Your task to perform on an android device: toggle data saver in the chrome app Image 0: 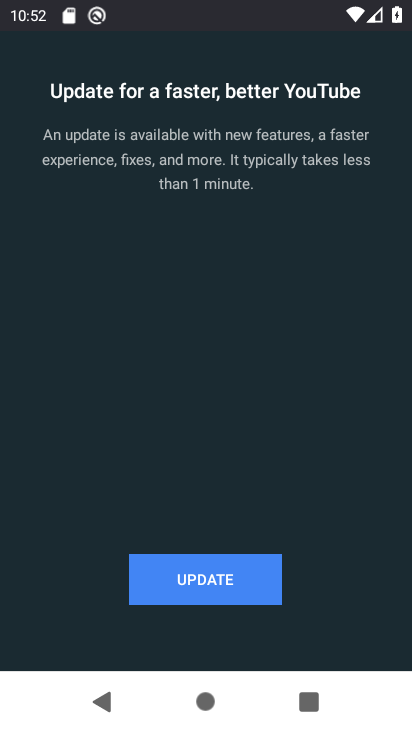
Step 0: press home button
Your task to perform on an android device: toggle data saver in the chrome app Image 1: 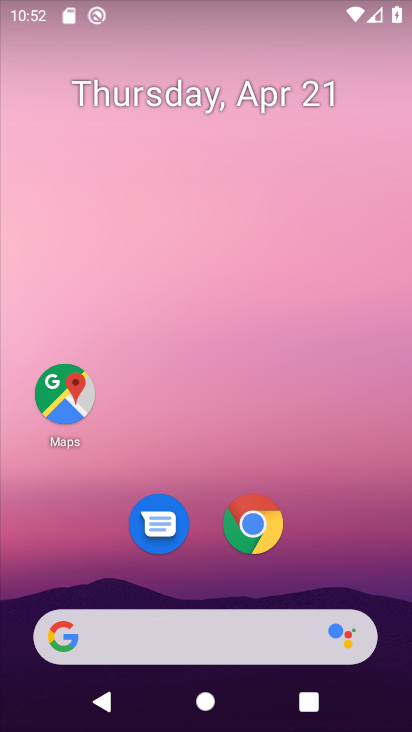
Step 1: click (257, 517)
Your task to perform on an android device: toggle data saver in the chrome app Image 2: 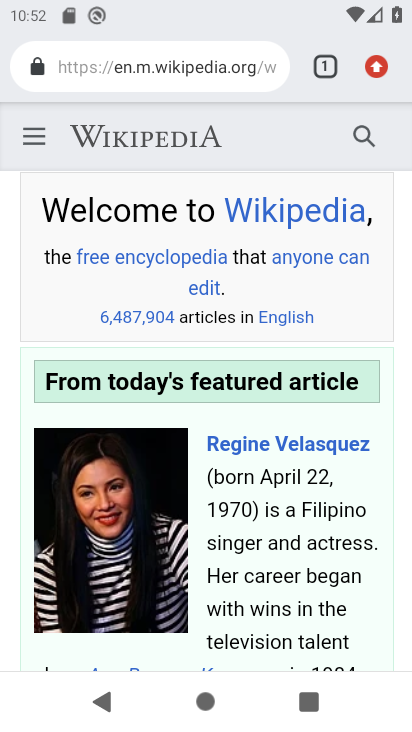
Step 2: drag from (378, 64) to (219, 533)
Your task to perform on an android device: toggle data saver in the chrome app Image 3: 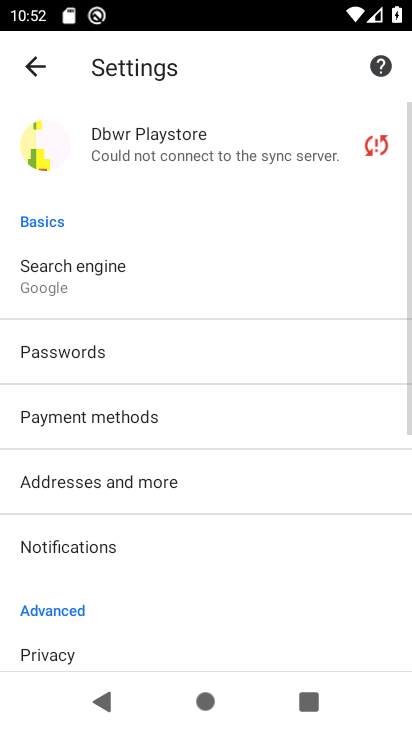
Step 3: drag from (250, 608) to (296, 222)
Your task to perform on an android device: toggle data saver in the chrome app Image 4: 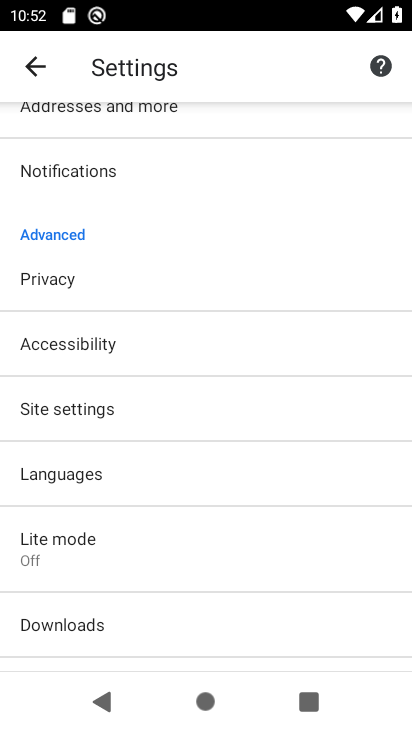
Step 4: click (172, 563)
Your task to perform on an android device: toggle data saver in the chrome app Image 5: 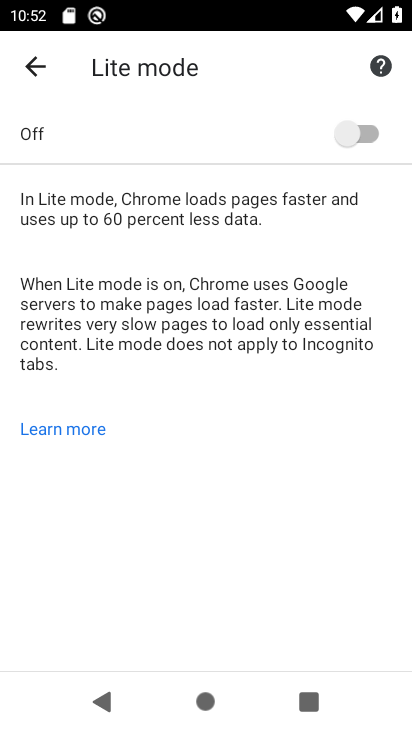
Step 5: click (367, 134)
Your task to perform on an android device: toggle data saver in the chrome app Image 6: 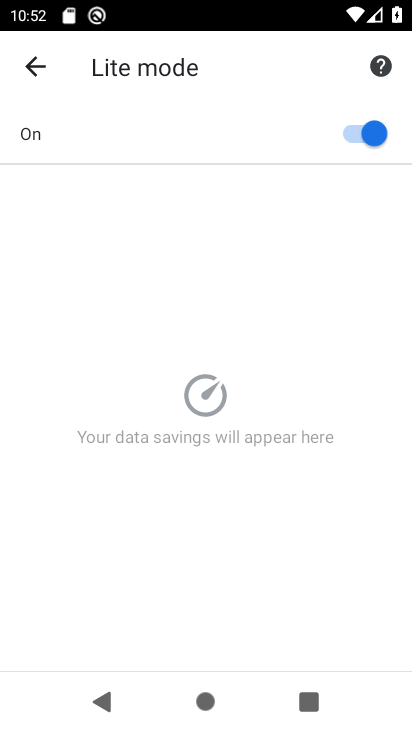
Step 6: task complete